Your task to perform on an android device: turn off translation in the chrome app Image 0: 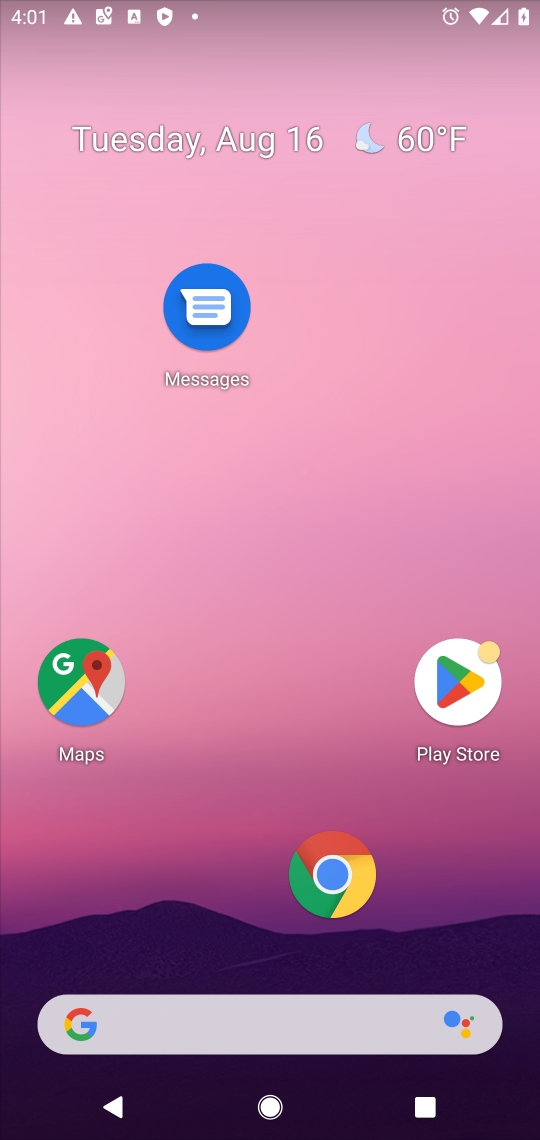
Step 0: click (347, 881)
Your task to perform on an android device: turn off translation in the chrome app Image 1: 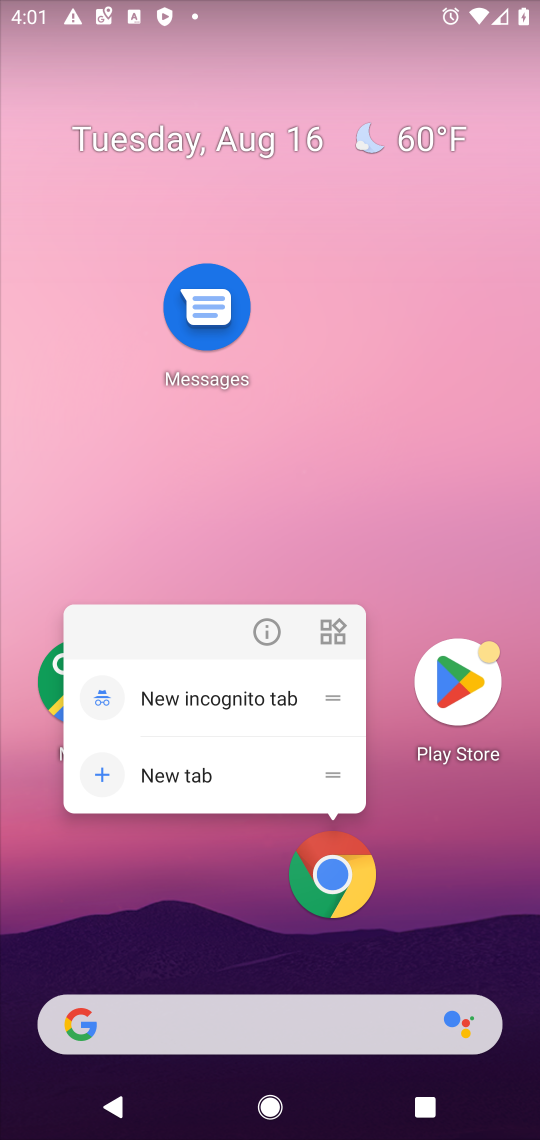
Step 1: click (332, 871)
Your task to perform on an android device: turn off translation in the chrome app Image 2: 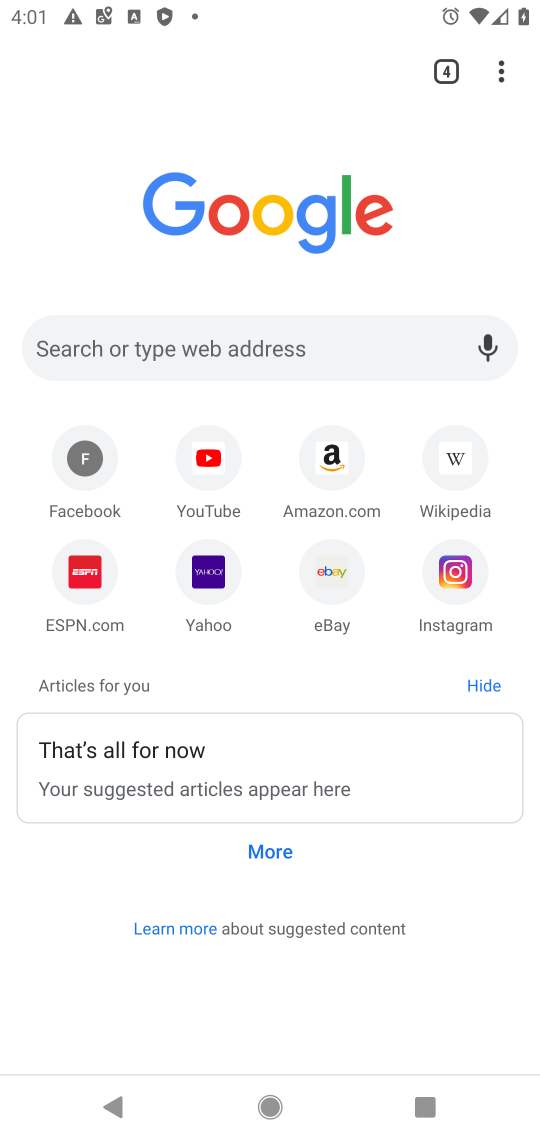
Step 2: click (499, 66)
Your task to perform on an android device: turn off translation in the chrome app Image 3: 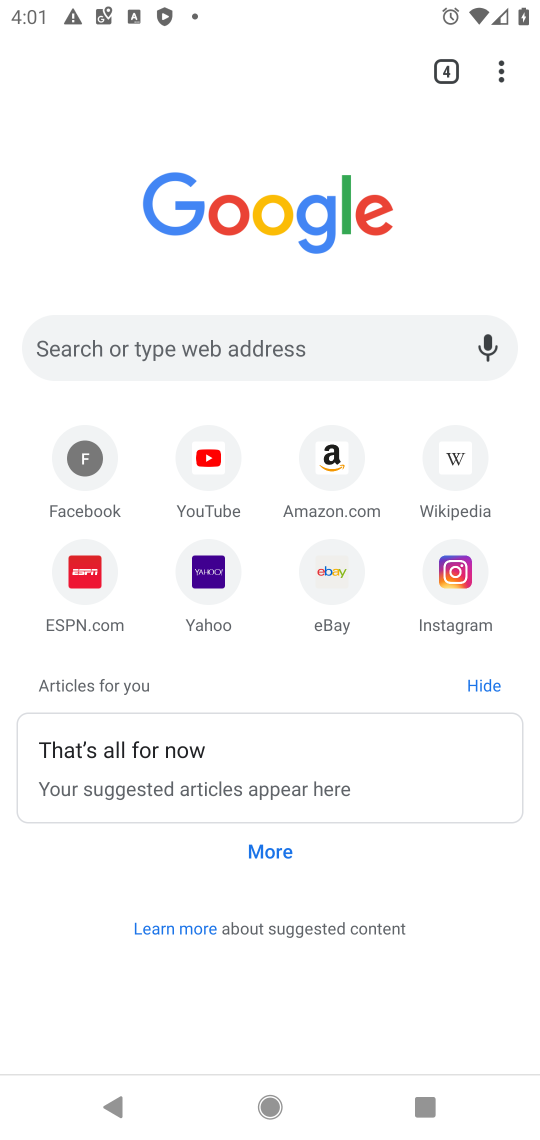
Step 3: click (498, 73)
Your task to perform on an android device: turn off translation in the chrome app Image 4: 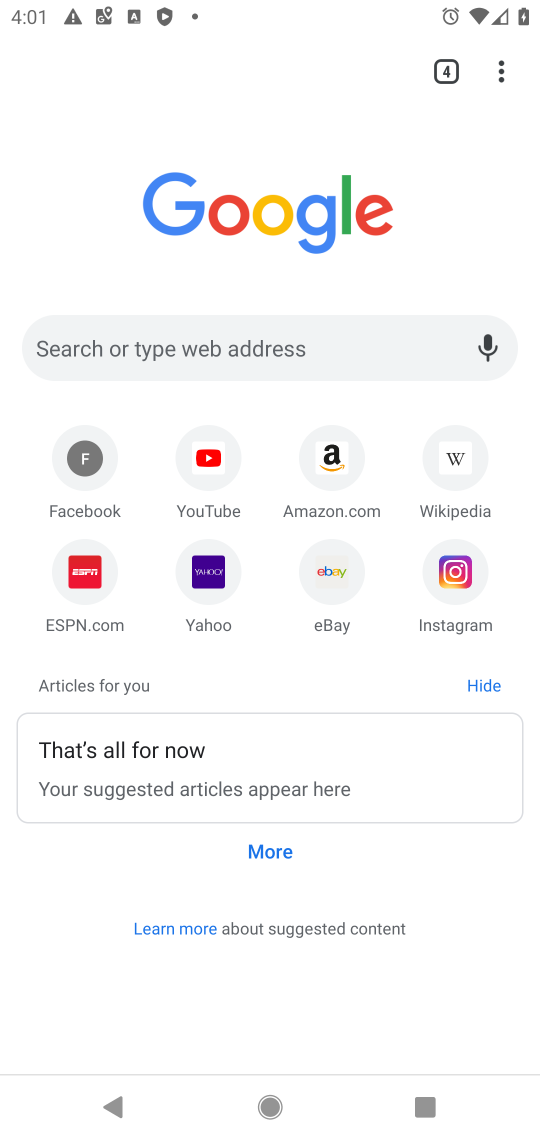
Step 4: click (496, 71)
Your task to perform on an android device: turn off translation in the chrome app Image 5: 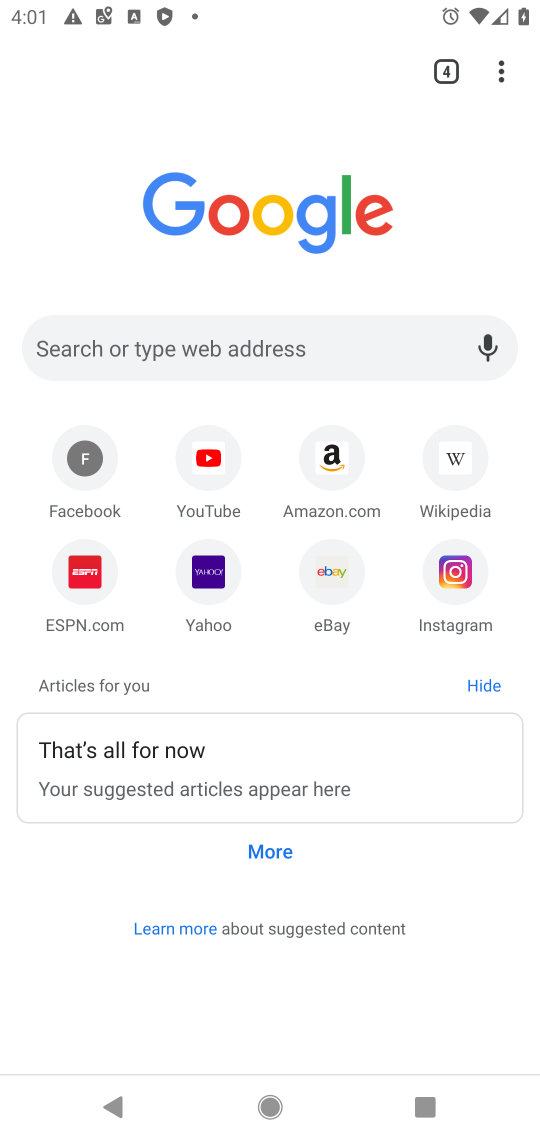
Step 5: click (495, 72)
Your task to perform on an android device: turn off translation in the chrome app Image 6: 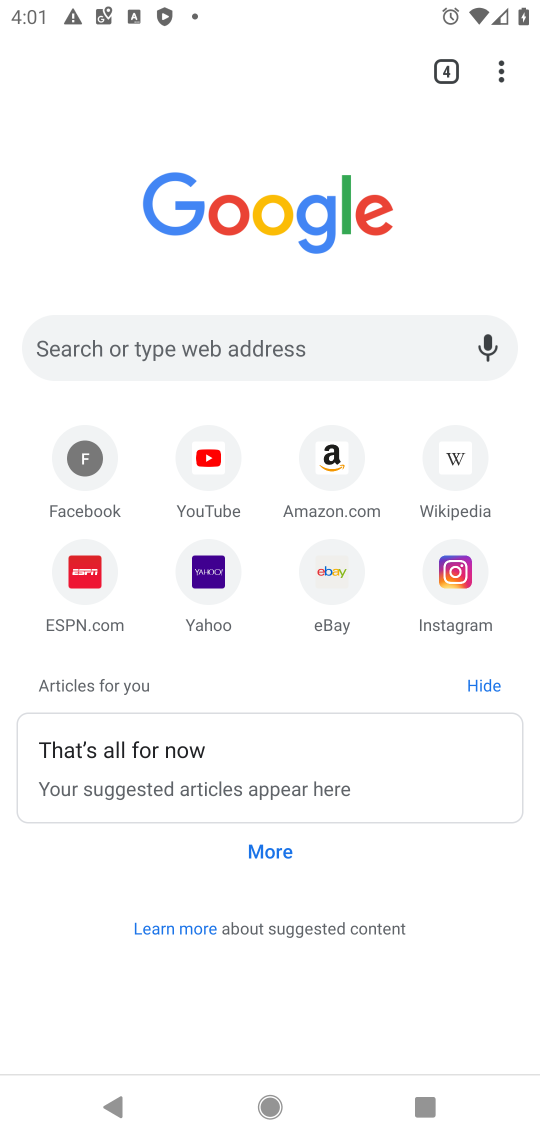
Step 6: click (495, 62)
Your task to perform on an android device: turn off translation in the chrome app Image 7: 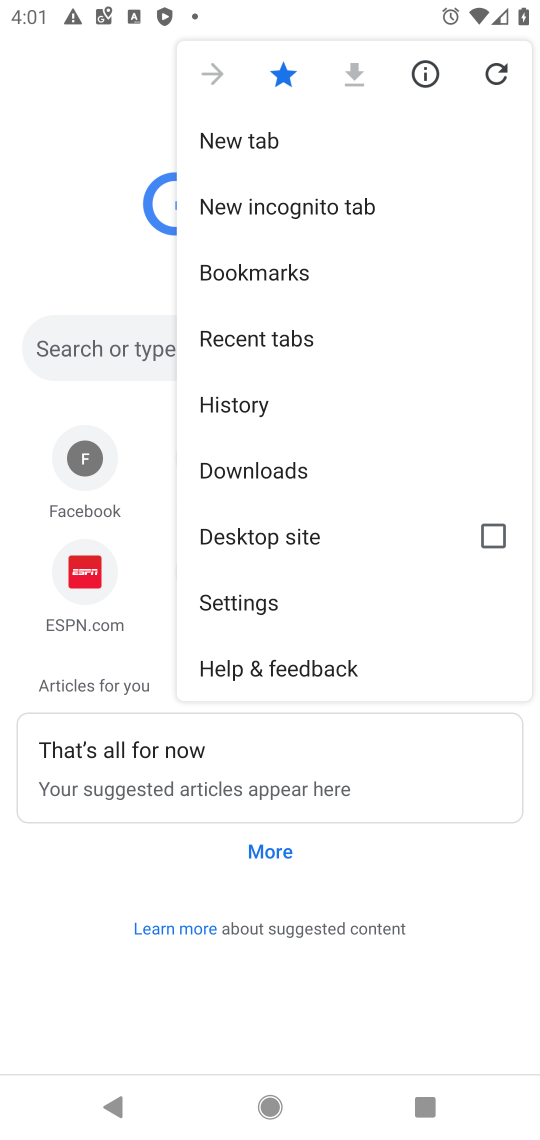
Step 7: click (231, 600)
Your task to perform on an android device: turn off translation in the chrome app Image 8: 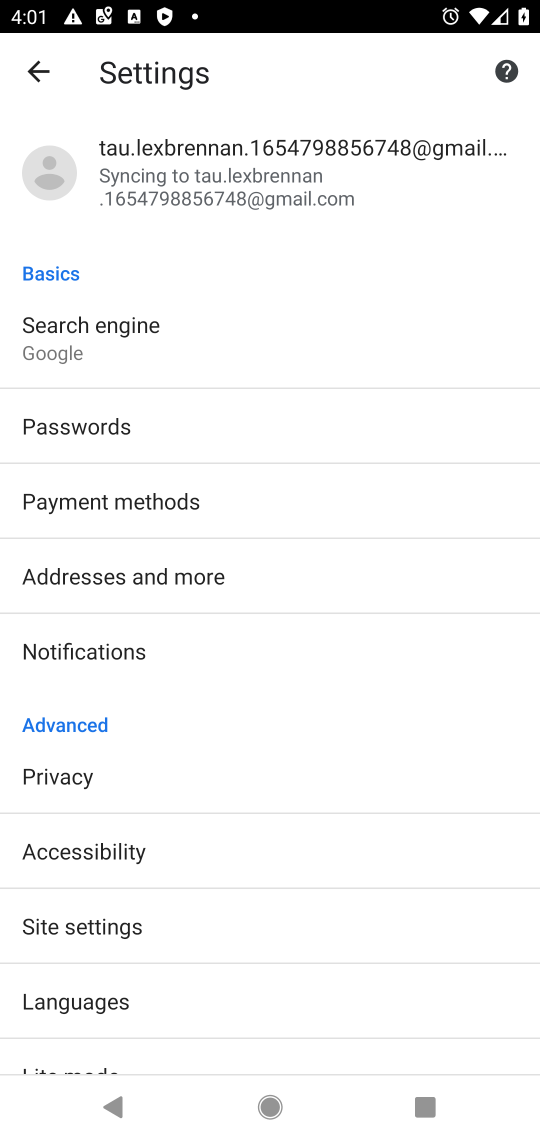
Step 8: click (76, 1007)
Your task to perform on an android device: turn off translation in the chrome app Image 9: 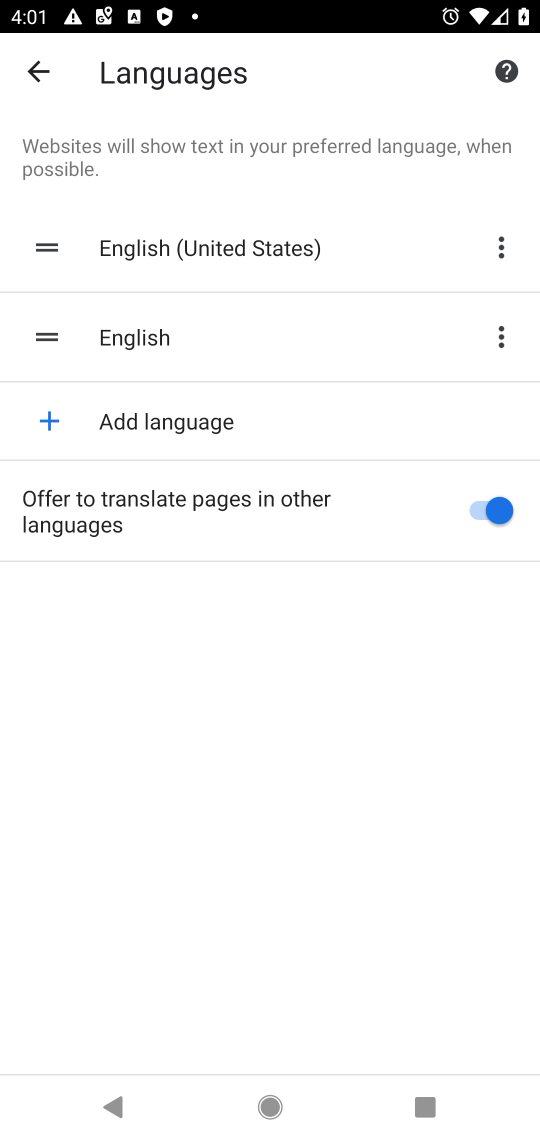
Step 9: click (495, 504)
Your task to perform on an android device: turn off translation in the chrome app Image 10: 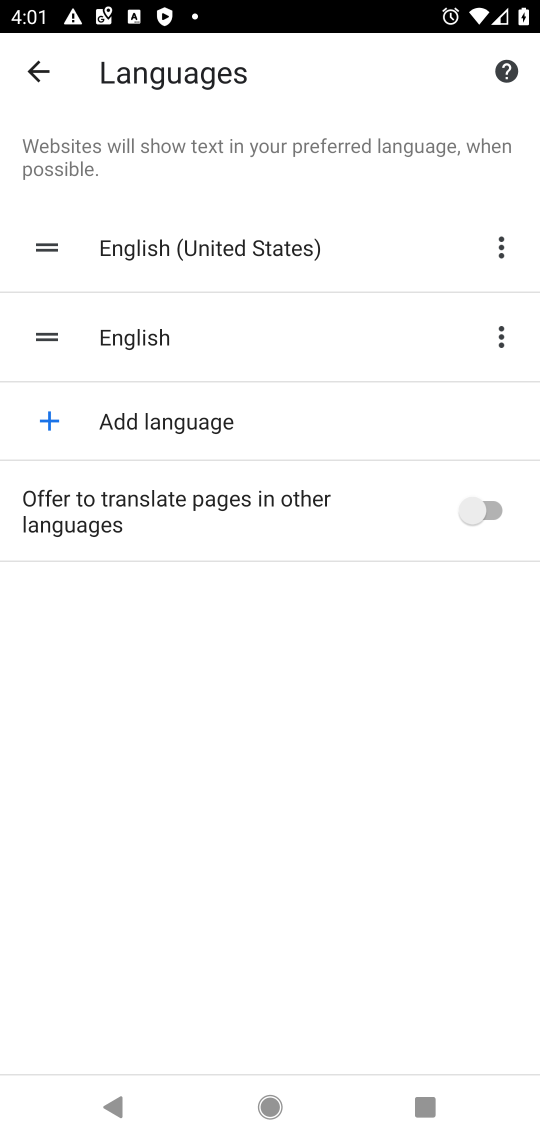
Step 10: task complete